Your task to perform on an android device: set default search engine in the chrome app Image 0: 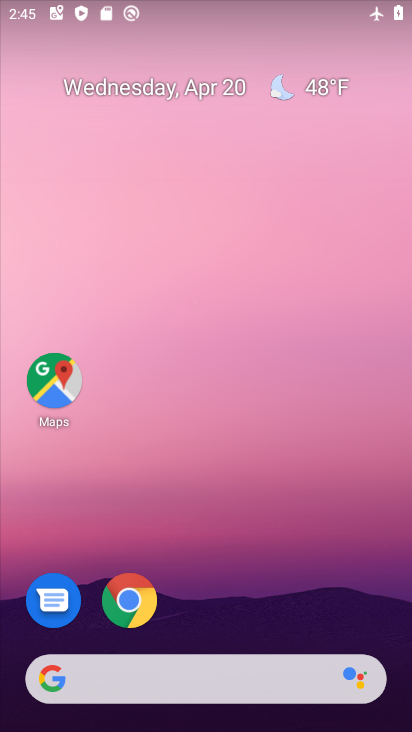
Step 0: drag from (263, 513) to (393, 126)
Your task to perform on an android device: set default search engine in the chrome app Image 1: 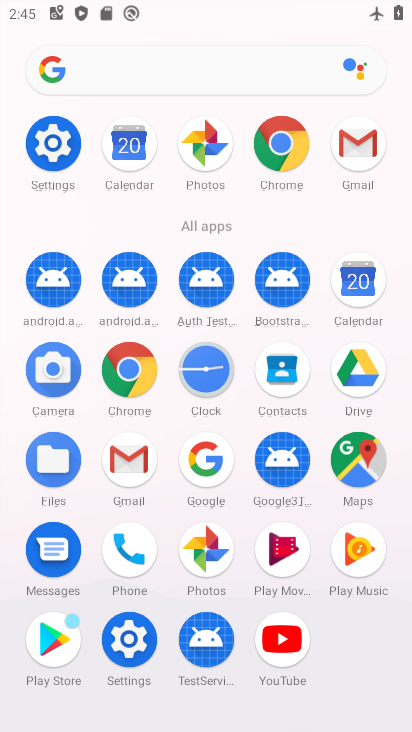
Step 1: click (310, 158)
Your task to perform on an android device: set default search engine in the chrome app Image 2: 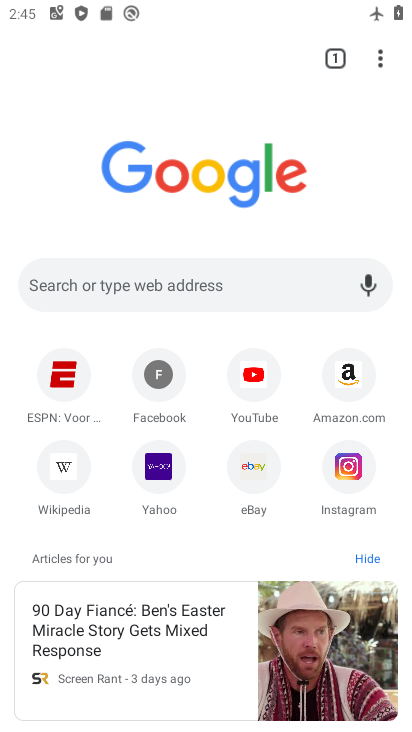
Step 2: drag from (385, 81) to (182, 551)
Your task to perform on an android device: set default search engine in the chrome app Image 3: 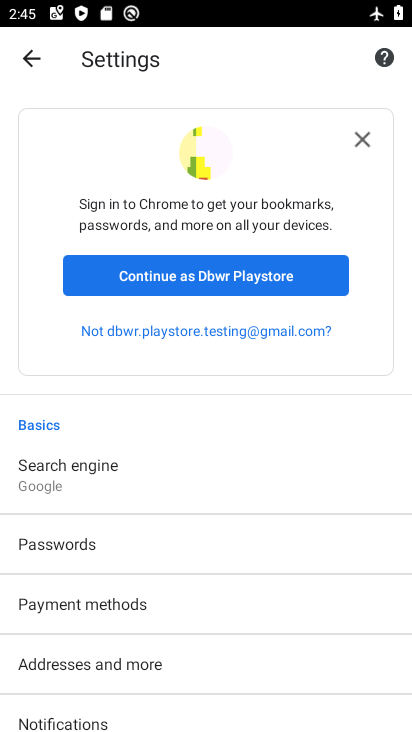
Step 3: click (102, 484)
Your task to perform on an android device: set default search engine in the chrome app Image 4: 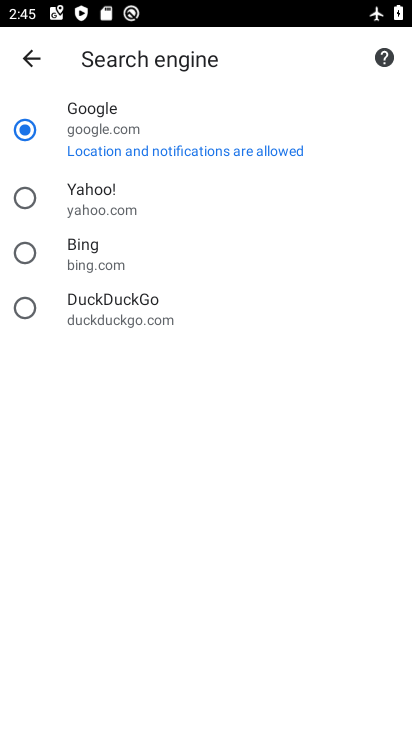
Step 4: task complete